Your task to perform on an android device: Go to privacy settings Image 0: 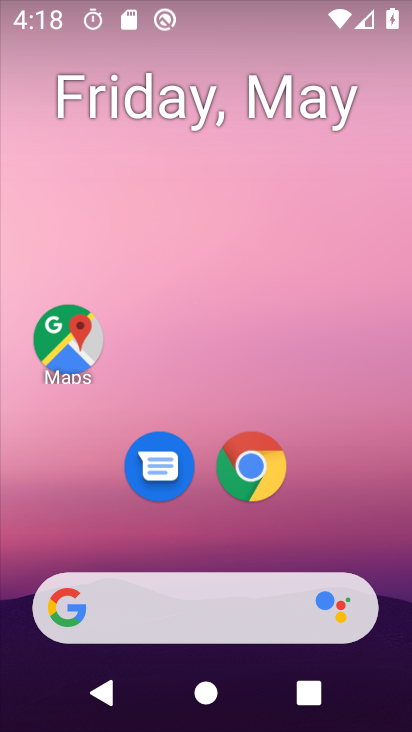
Step 0: click (247, 472)
Your task to perform on an android device: Go to privacy settings Image 1: 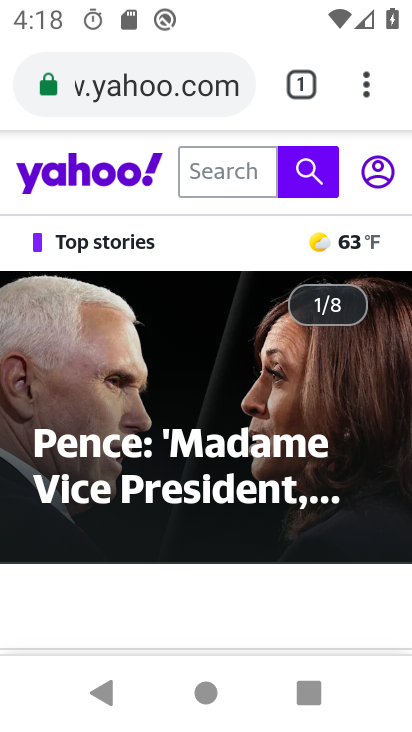
Step 1: click (364, 70)
Your task to perform on an android device: Go to privacy settings Image 2: 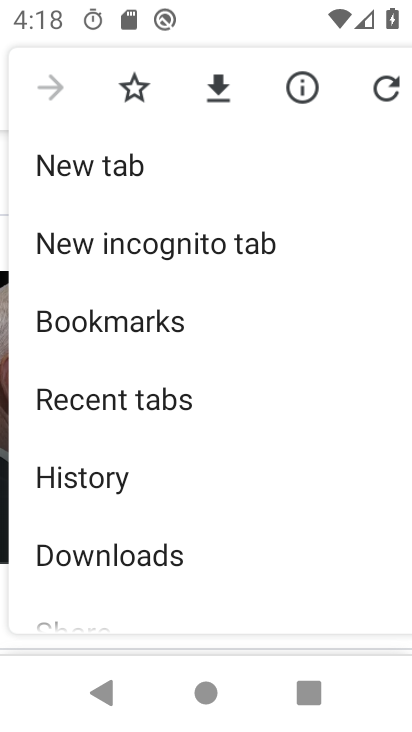
Step 2: drag from (303, 577) to (302, 297)
Your task to perform on an android device: Go to privacy settings Image 3: 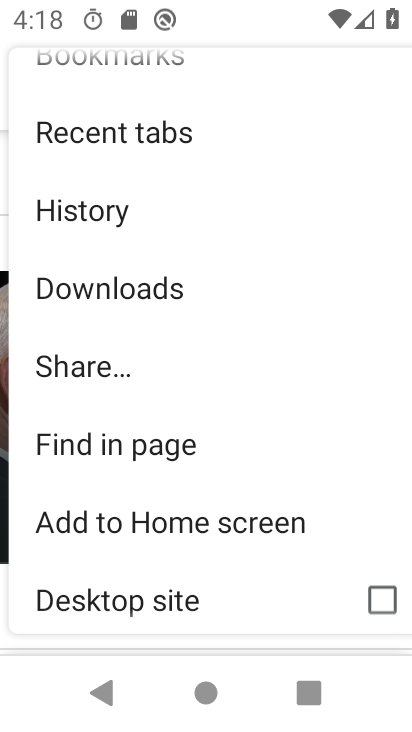
Step 3: drag from (350, 592) to (336, 178)
Your task to perform on an android device: Go to privacy settings Image 4: 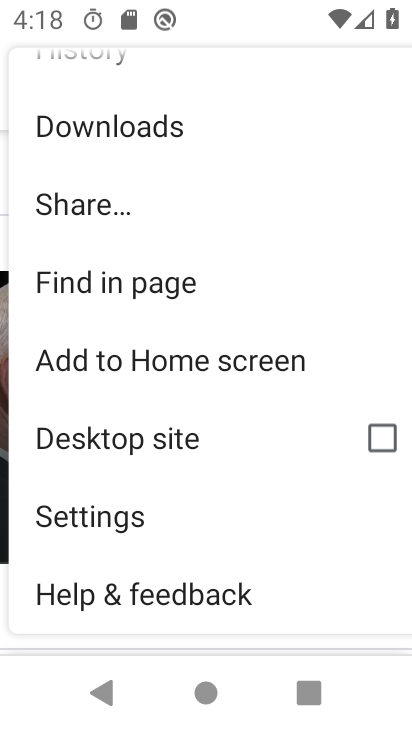
Step 4: click (93, 512)
Your task to perform on an android device: Go to privacy settings Image 5: 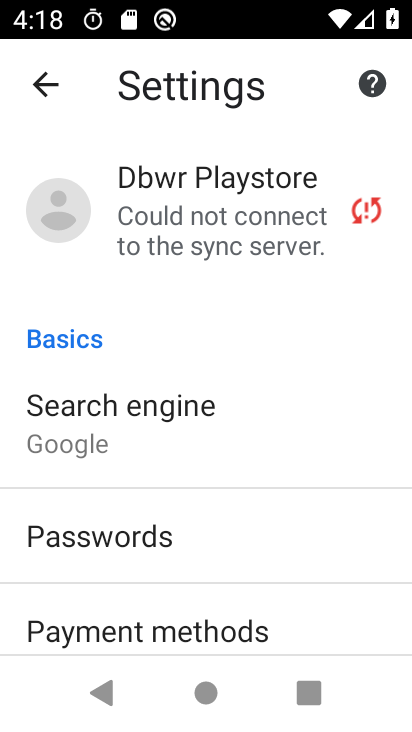
Step 5: drag from (326, 583) to (295, 252)
Your task to perform on an android device: Go to privacy settings Image 6: 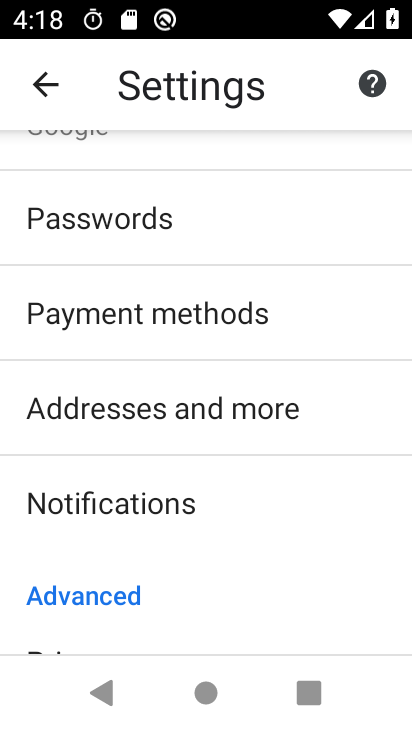
Step 6: drag from (335, 562) to (308, 256)
Your task to perform on an android device: Go to privacy settings Image 7: 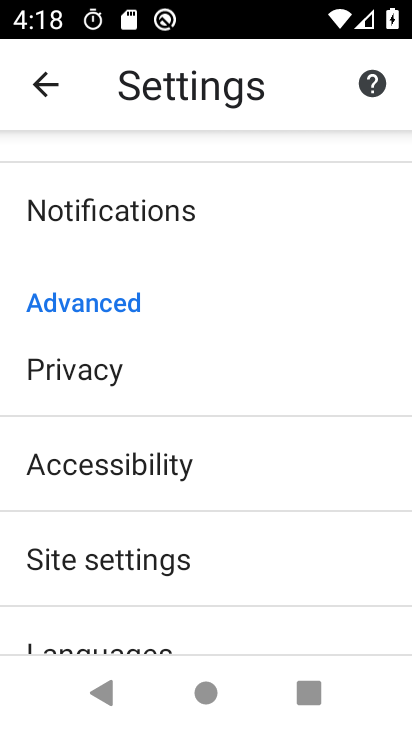
Step 7: click (80, 368)
Your task to perform on an android device: Go to privacy settings Image 8: 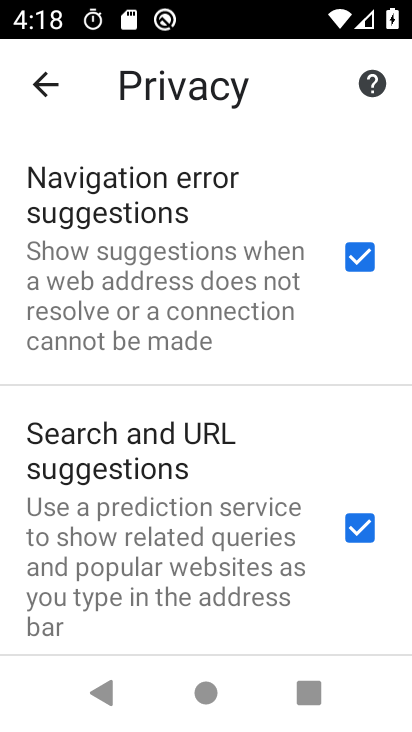
Step 8: task complete